Your task to perform on an android device: Add razer nari to the cart on newegg Image 0: 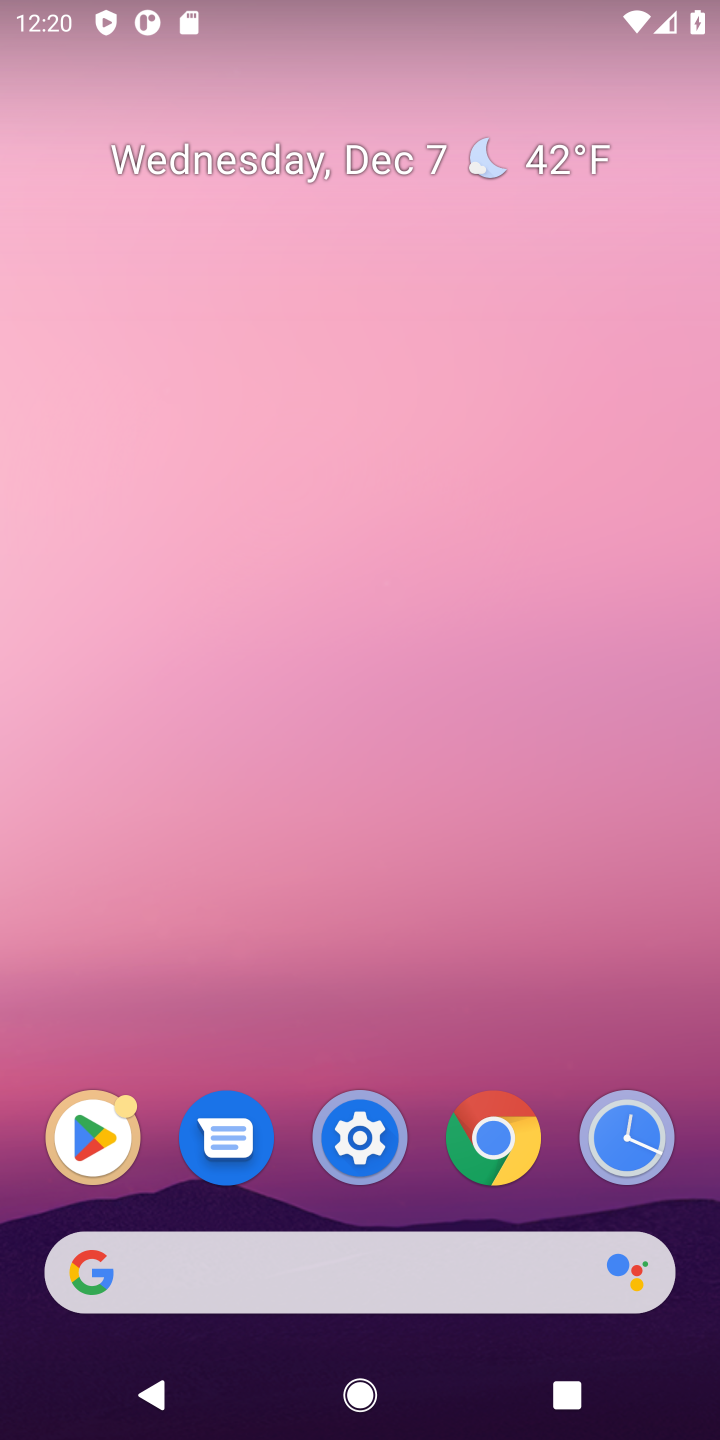
Step 0: click (345, 1266)
Your task to perform on an android device: Add razer nari to the cart on newegg Image 1: 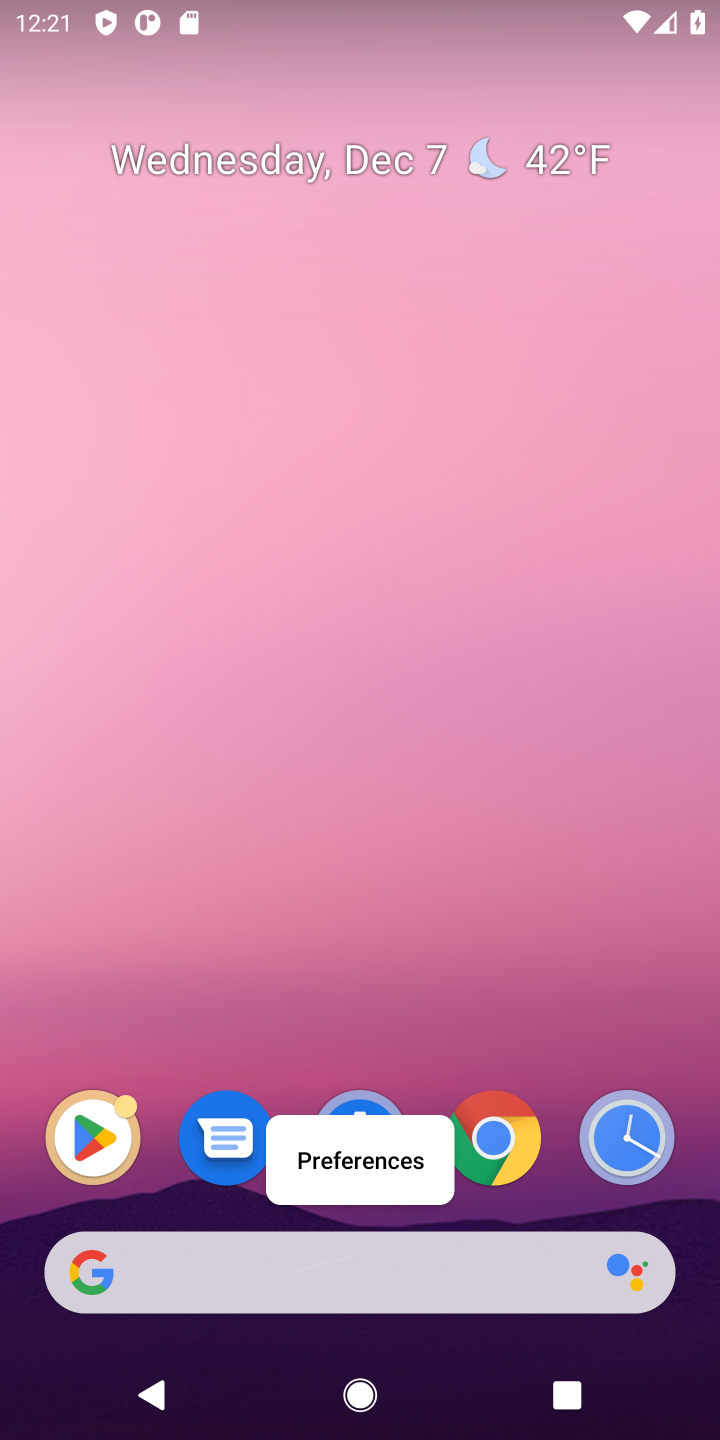
Step 1: click (229, 1310)
Your task to perform on an android device: Add razer nari to the cart on newegg Image 2: 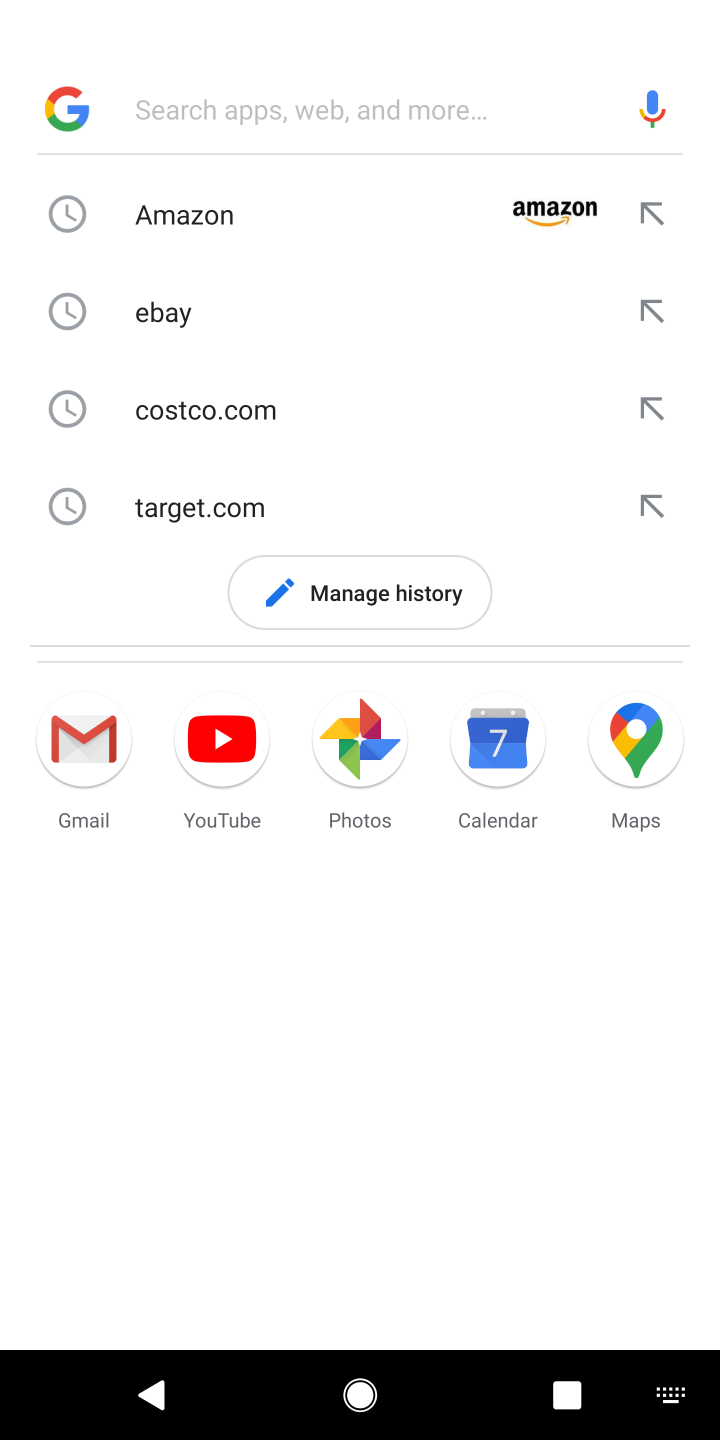
Step 2: type "newegg"
Your task to perform on an android device: Add razer nari to the cart on newegg Image 3: 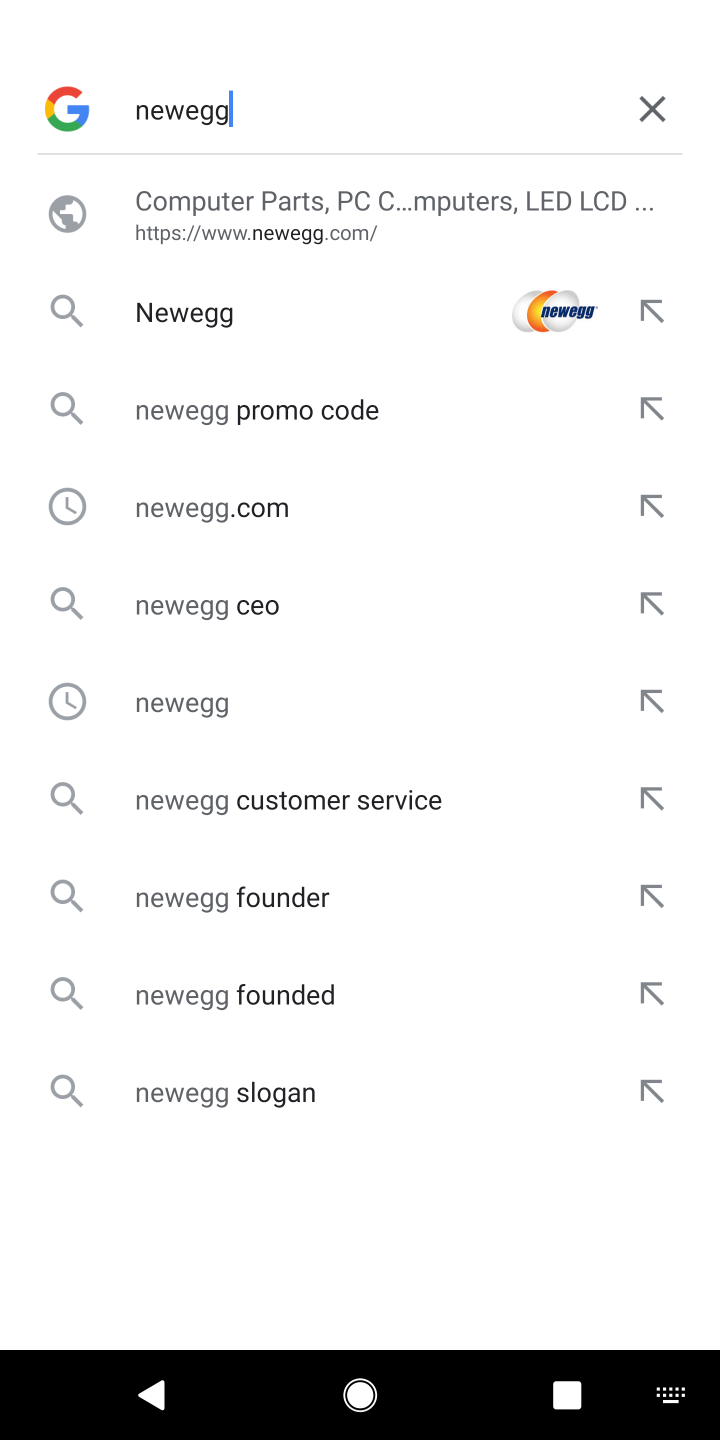
Step 3: click (316, 239)
Your task to perform on an android device: Add razer nari to the cart on newegg Image 4: 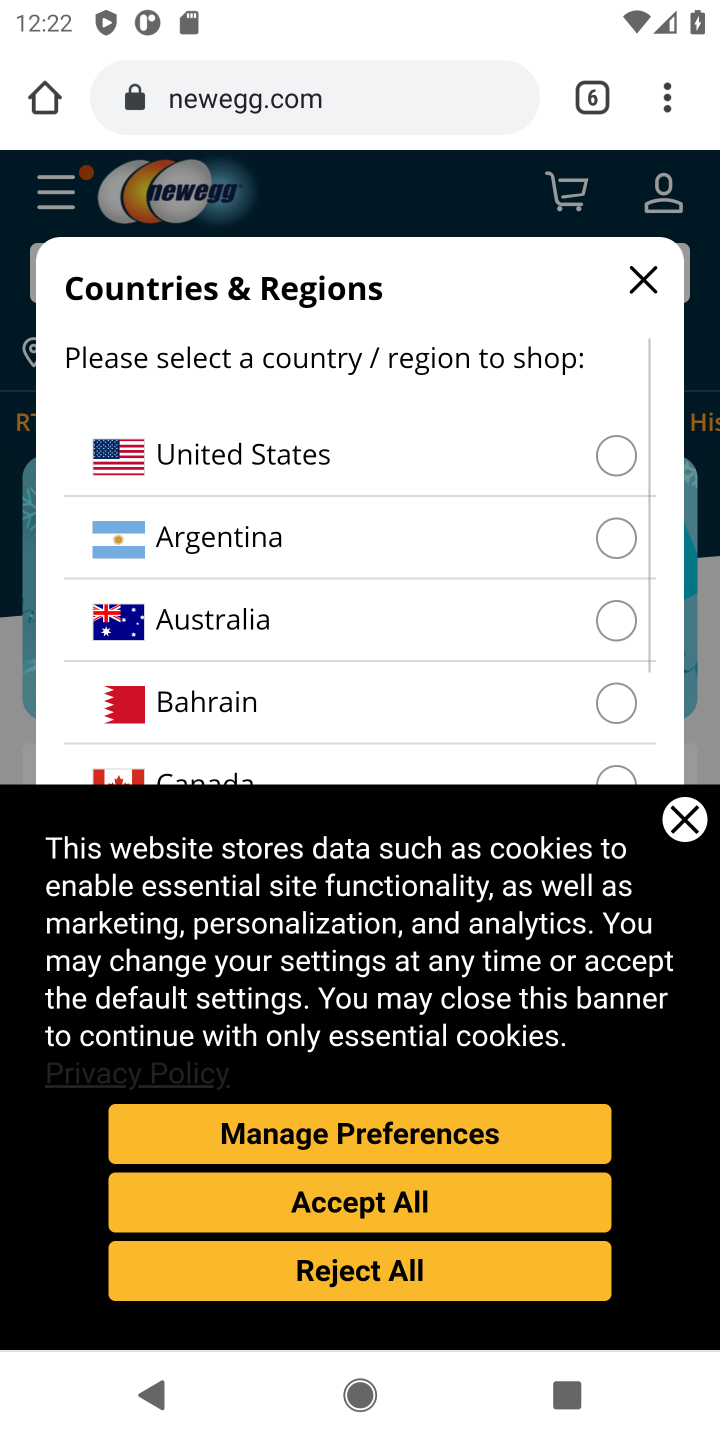
Step 4: task complete